Your task to perform on an android device: Open Google Maps and go to "Timeline" Image 0: 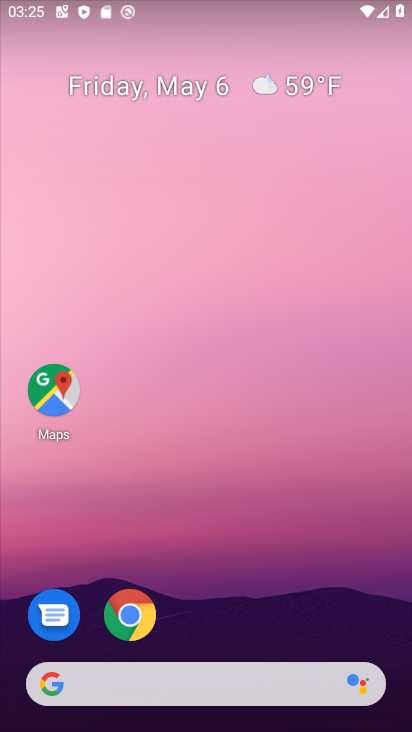
Step 0: drag from (360, 632) to (128, 11)
Your task to perform on an android device: Open Google Maps and go to "Timeline" Image 1: 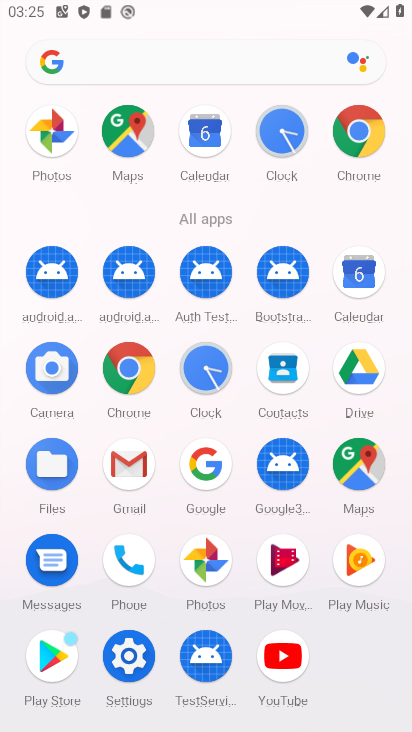
Step 1: click (114, 138)
Your task to perform on an android device: Open Google Maps and go to "Timeline" Image 2: 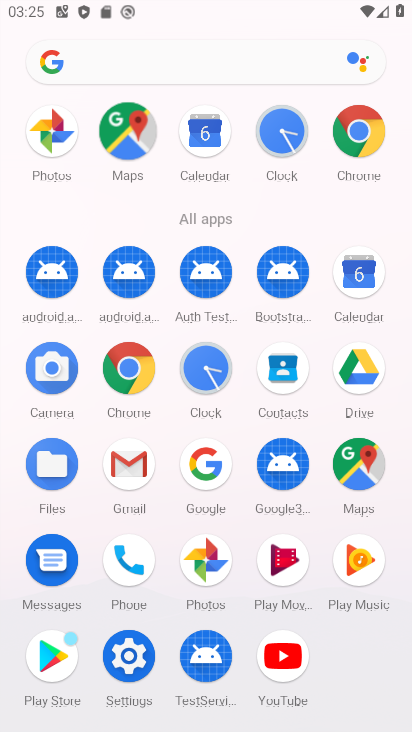
Step 2: click (116, 138)
Your task to perform on an android device: Open Google Maps and go to "Timeline" Image 3: 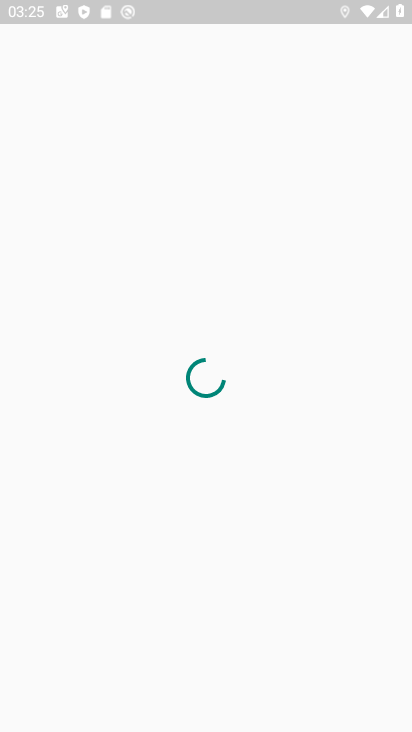
Step 3: click (34, 55)
Your task to perform on an android device: Open Google Maps and go to "Timeline" Image 4: 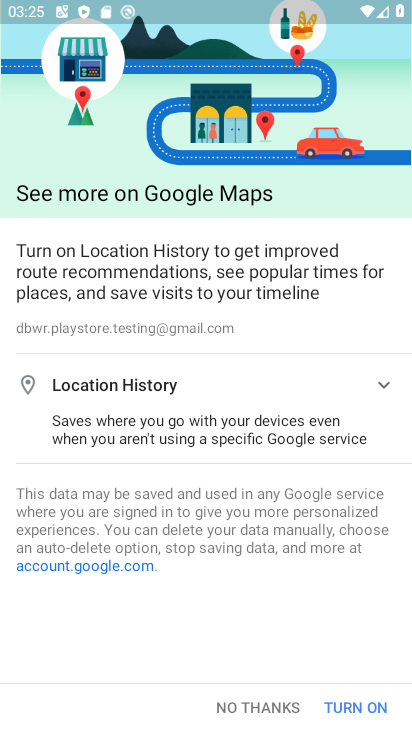
Step 4: click (362, 710)
Your task to perform on an android device: Open Google Maps and go to "Timeline" Image 5: 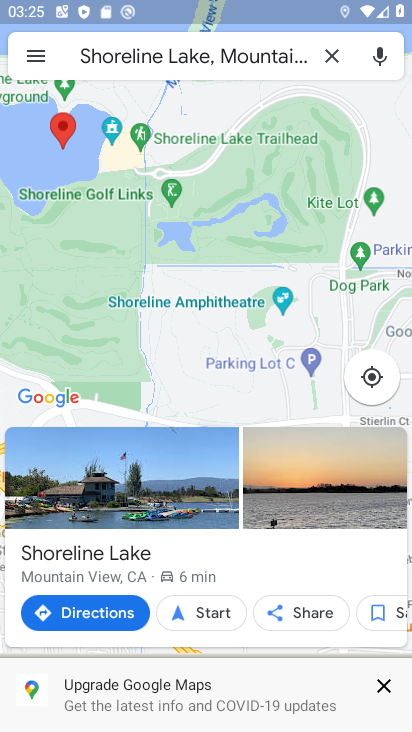
Step 5: click (23, 43)
Your task to perform on an android device: Open Google Maps and go to "Timeline" Image 6: 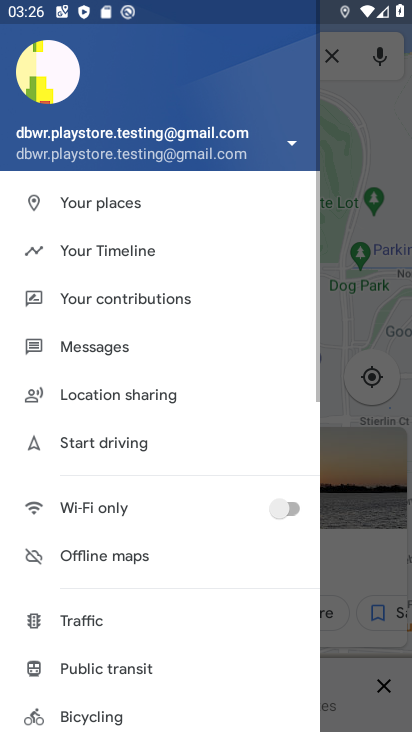
Step 6: click (115, 248)
Your task to perform on an android device: Open Google Maps and go to "Timeline" Image 7: 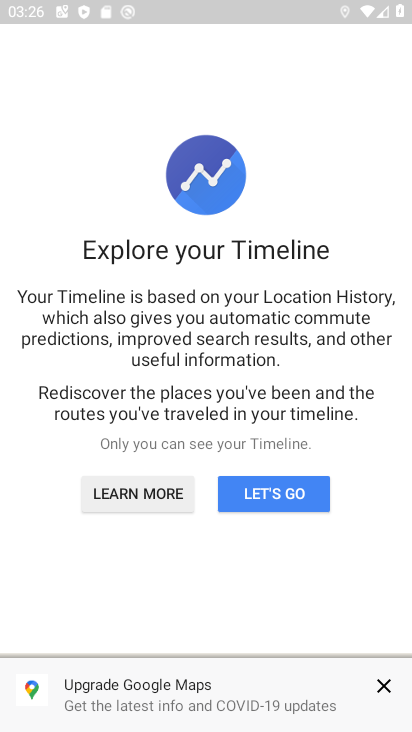
Step 7: click (258, 509)
Your task to perform on an android device: Open Google Maps and go to "Timeline" Image 8: 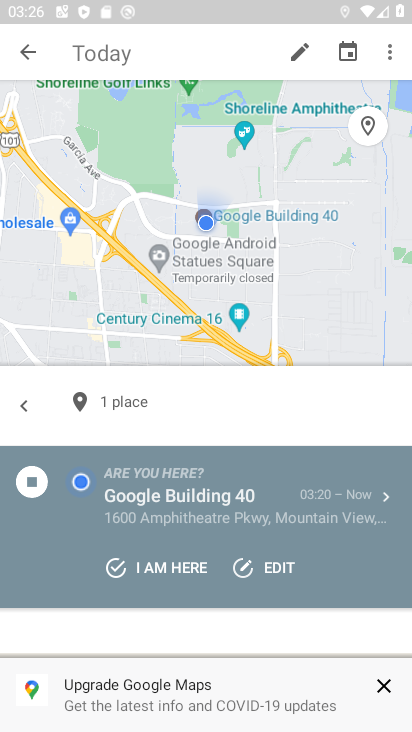
Step 8: task complete